Your task to perform on an android device: see sites visited before in the chrome app Image 0: 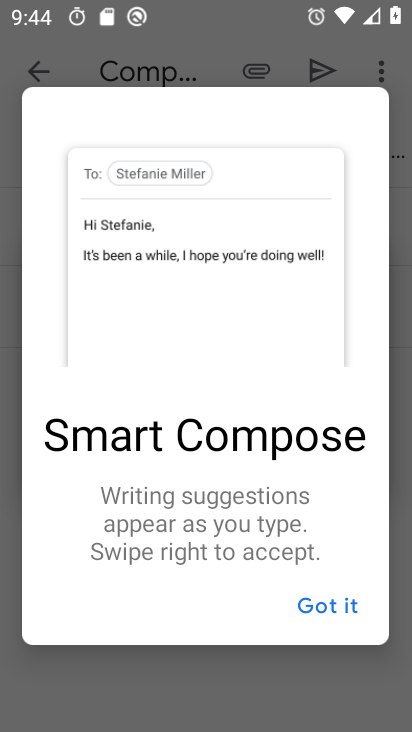
Step 0: press home button
Your task to perform on an android device: see sites visited before in the chrome app Image 1: 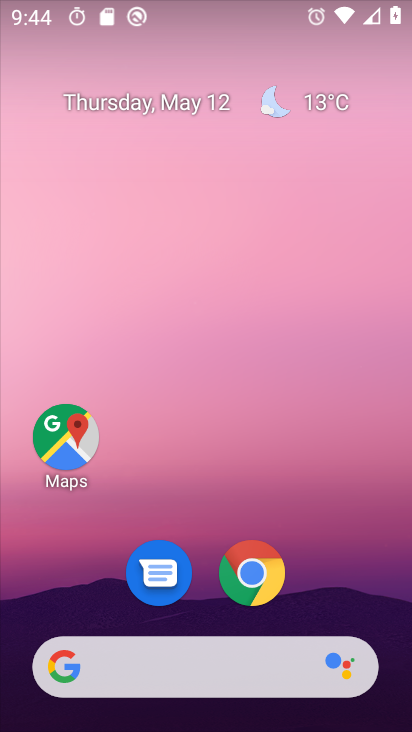
Step 1: click (261, 574)
Your task to perform on an android device: see sites visited before in the chrome app Image 2: 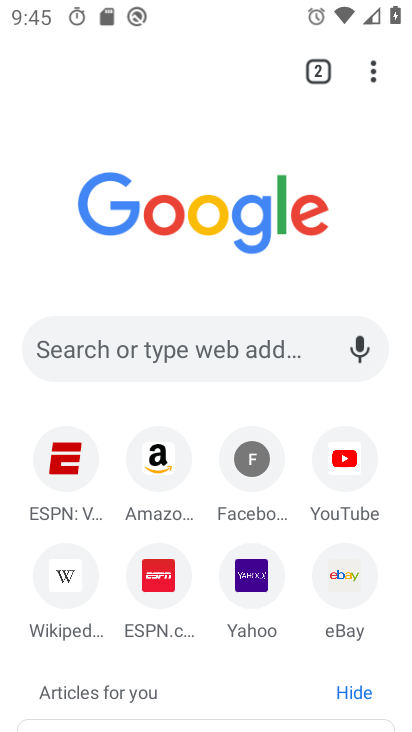
Step 2: click (370, 72)
Your task to perform on an android device: see sites visited before in the chrome app Image 3: 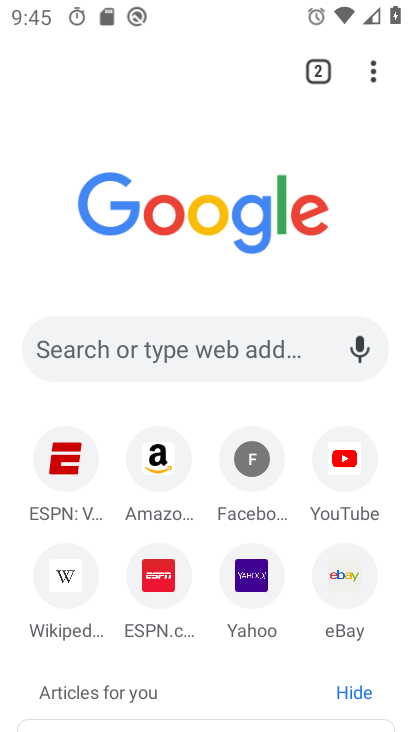
Step 3: task complete